Your task to perform on an android device: Add "sony triple a" to the cart on newegg.com, then select checkout. Image 0: 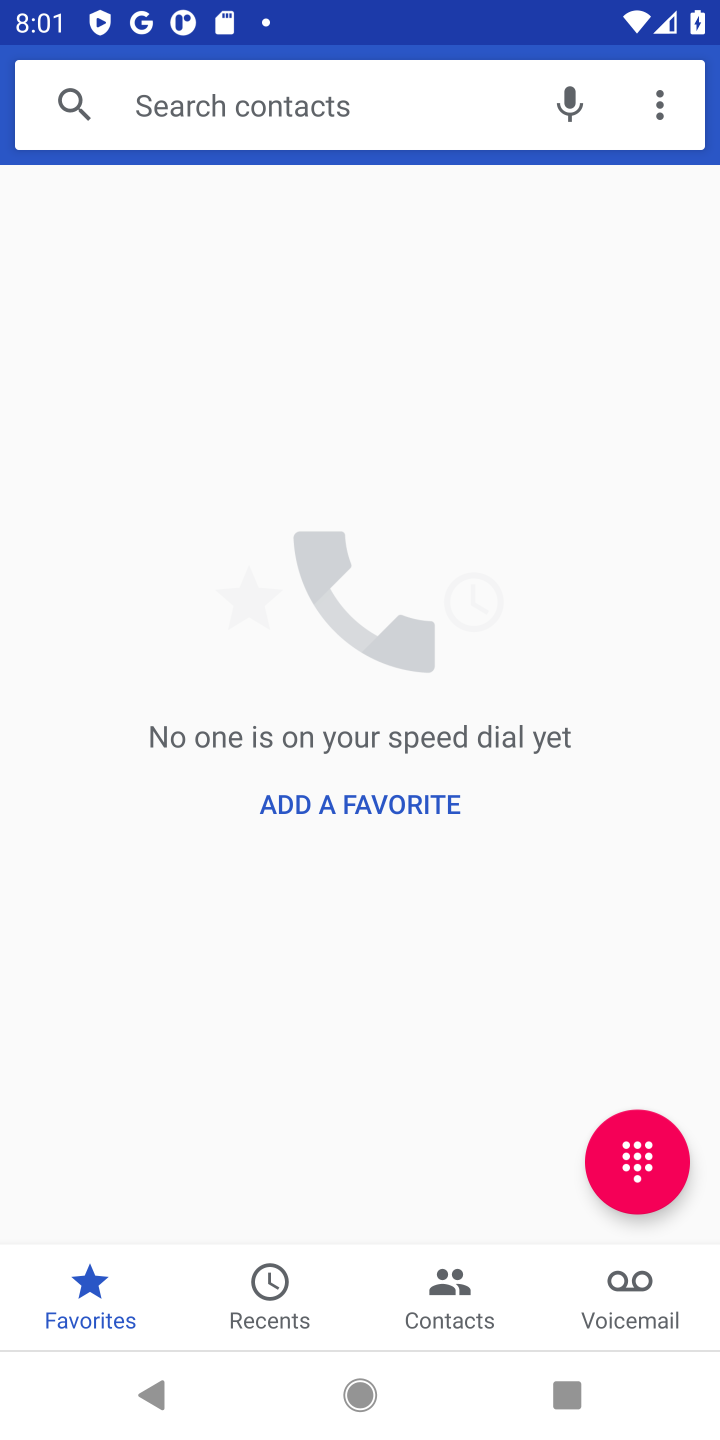
Step 0: press home button
Your task to perform on an android device: Add "sony triple a" to the cart on newegg.com, then select checkout. Image 1: 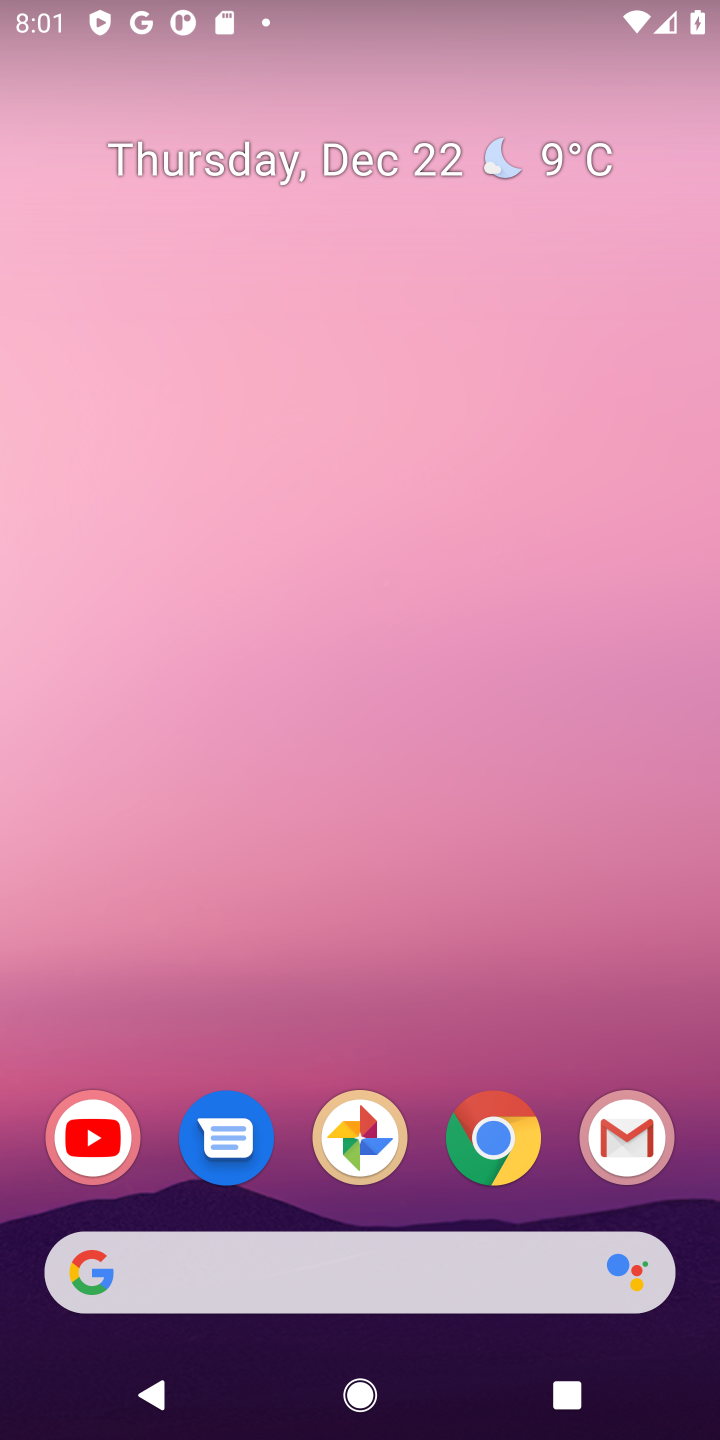
Step 1: click (485, 1151)
Your task to perform on an android device: Add "sony triple a" to the cart on newegg.com, then select checkout. Image 2: 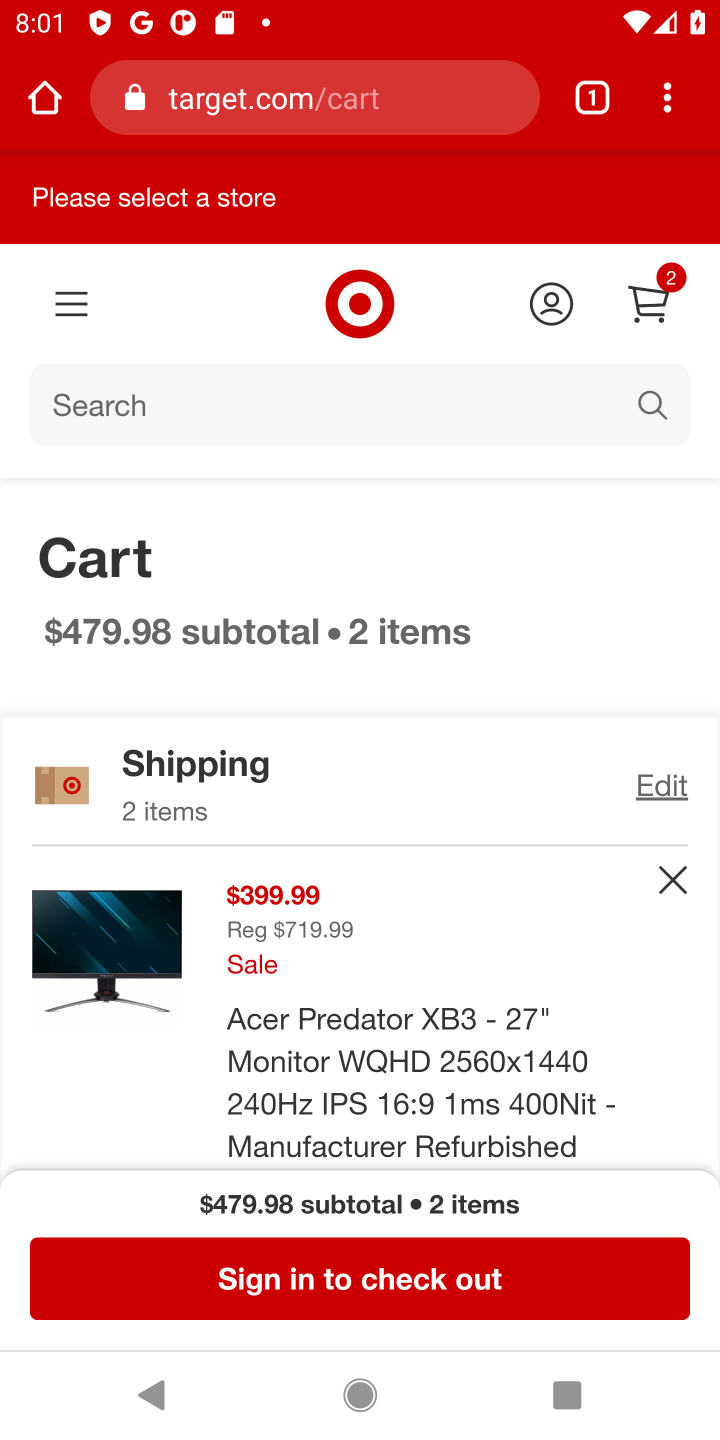
Step 2: click (248, 96)
Your task to perform on an android device: Add "sony triple a" to the cart on newegg.com, then select checkout. Image 3: 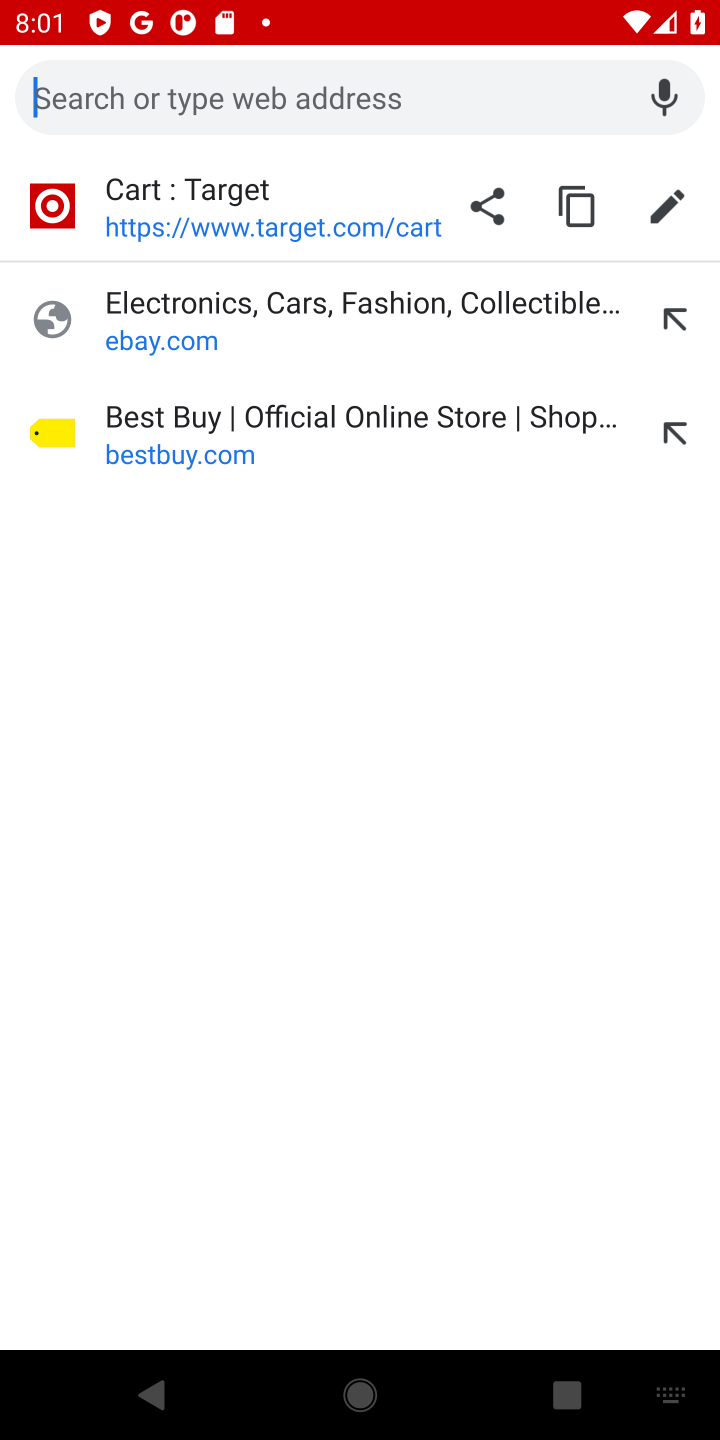
Step 3: type "newegg.com"
Your task to perform on an android device: Add "sony triple a" to the cart on newegg.com, then select checkout. Image 4: 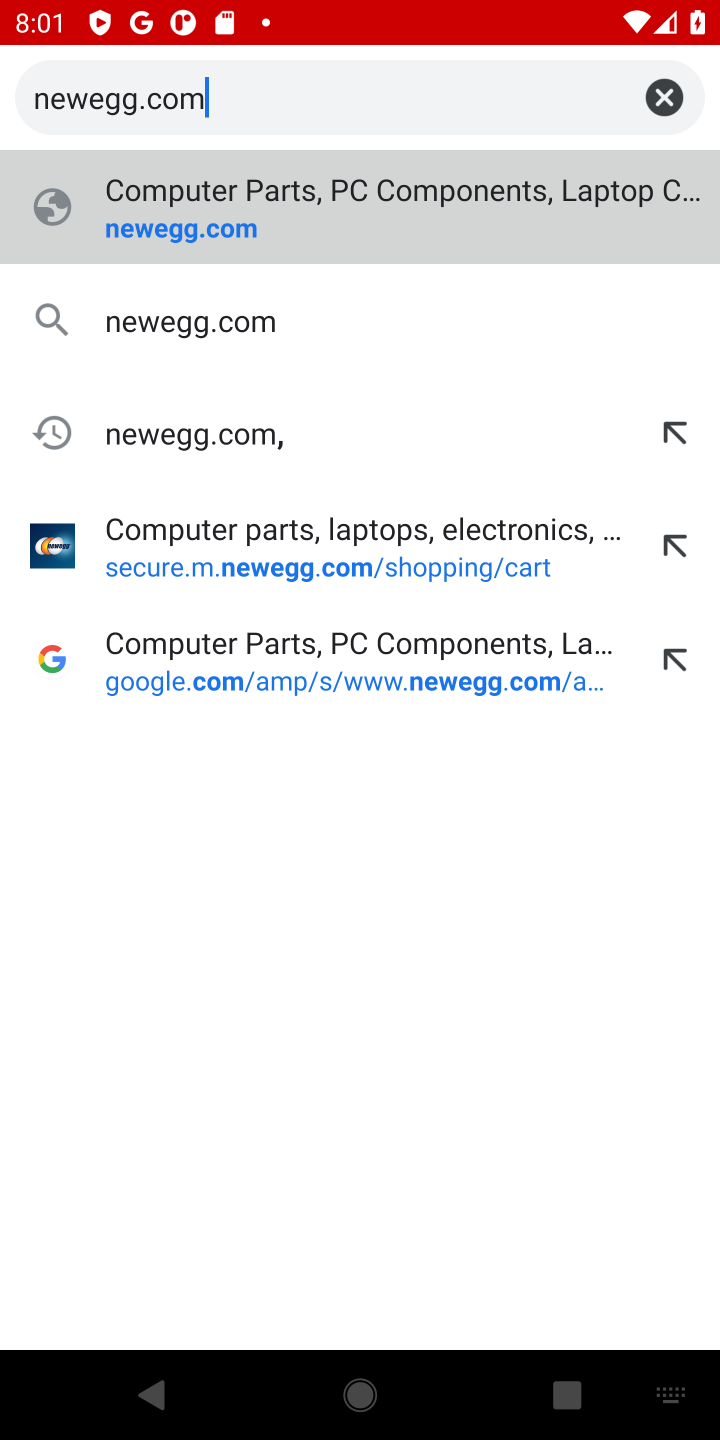
Step 4: click (298, 248)
Your task to perform on an android device: Add "sony triple a" to the cart on newegg.com, then select checkout. Image 5: 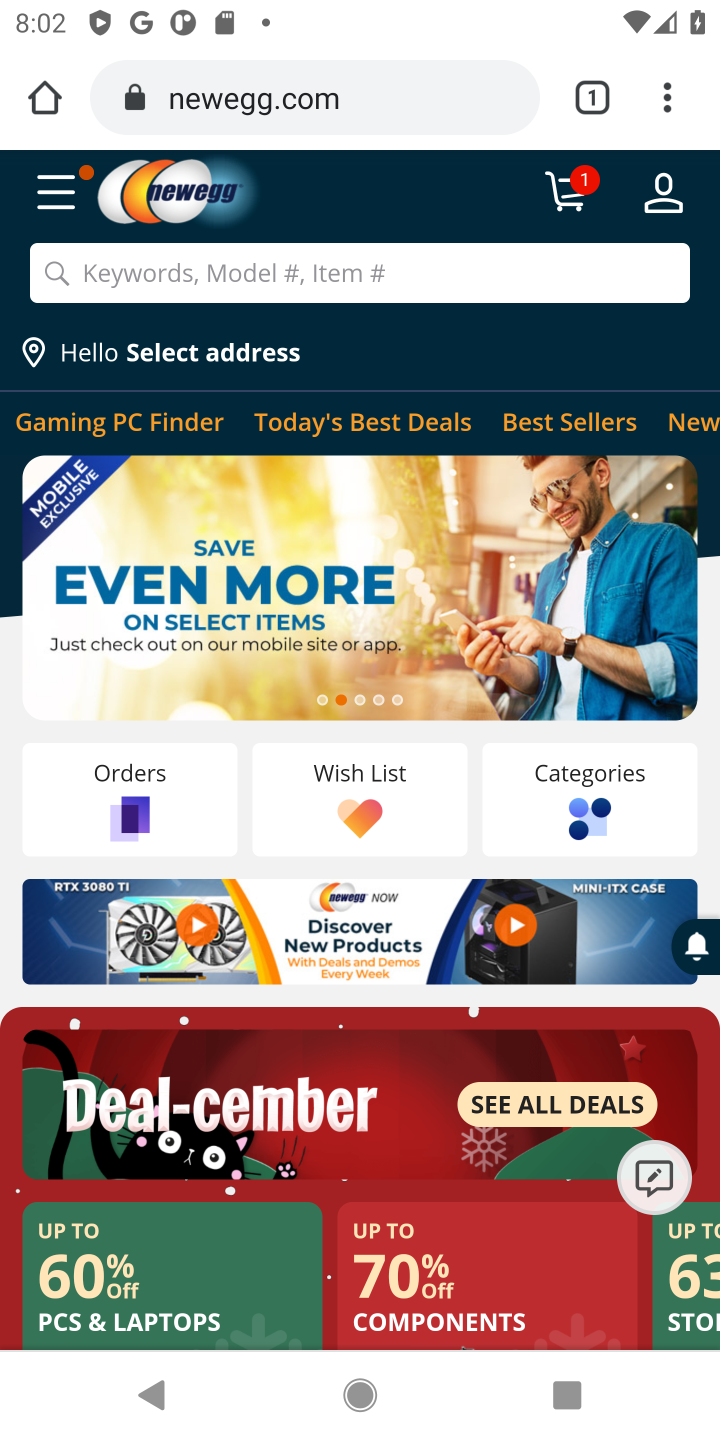
Step 5: click (226, 270)
Your task to perform on an android device: Add "sony triple a" to the cart on newegg.com, then select checkout. Image 6: 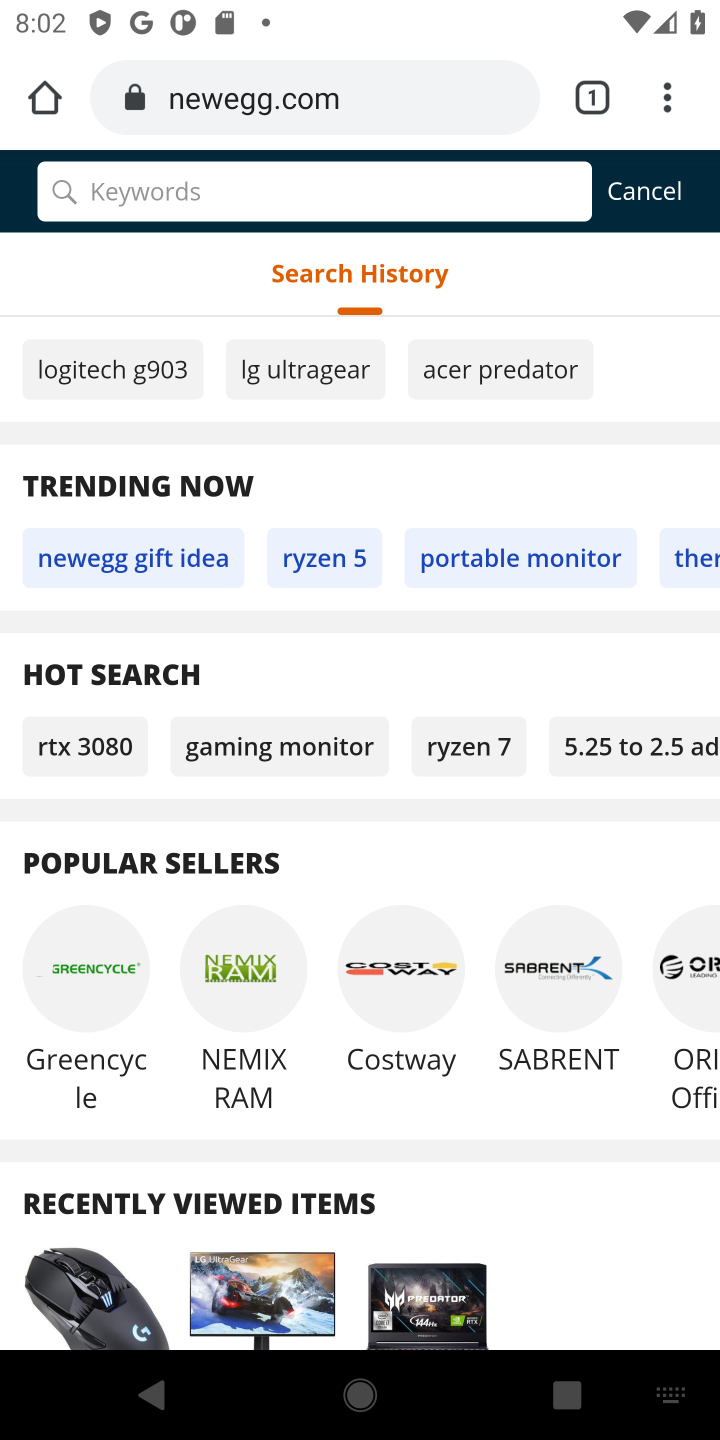
Step 6: type "sony triple a"
Your task to perform on an android device: Add "sony triple a" to the cart on newegg.com, then select checkout. Image 7: 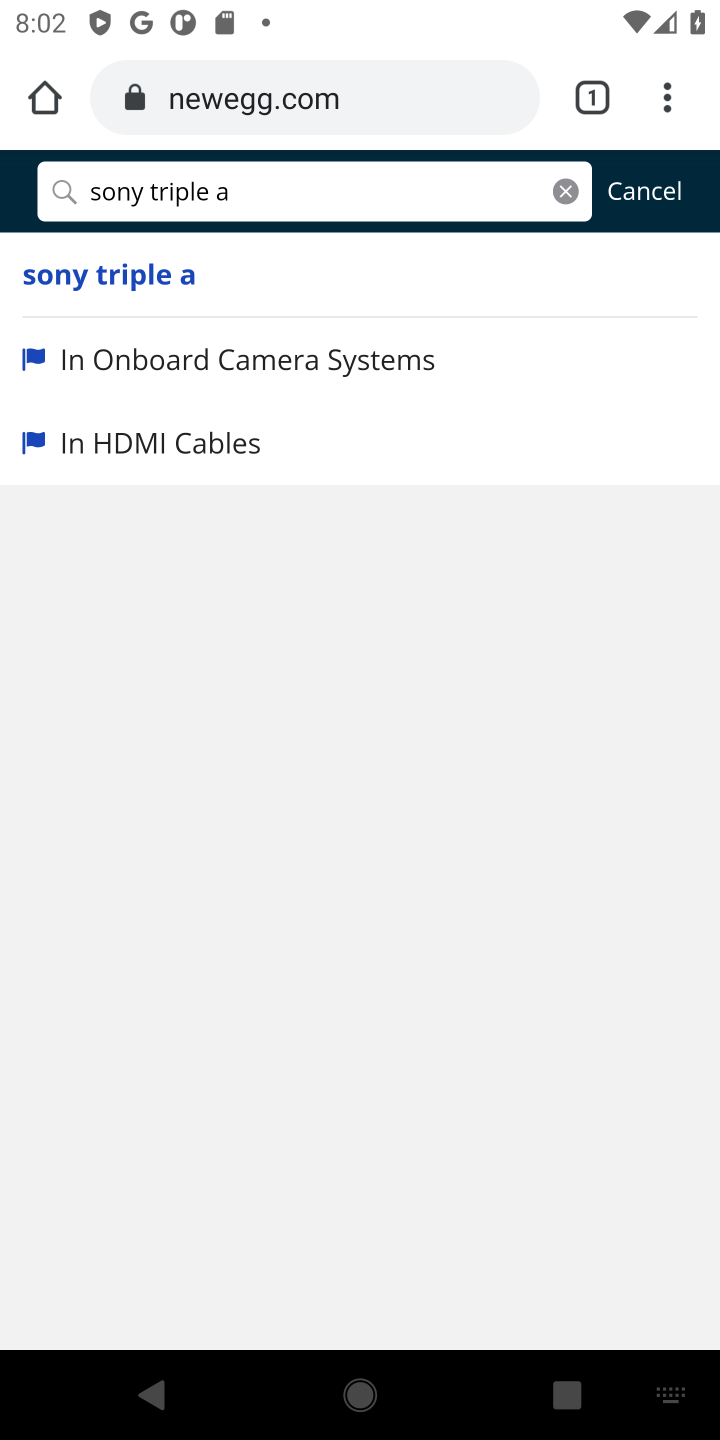
Step 7: press enter
Your task to perform on an android device: Add "sony triple a" to the cart on newegg.com, then select checkout. Image 8: 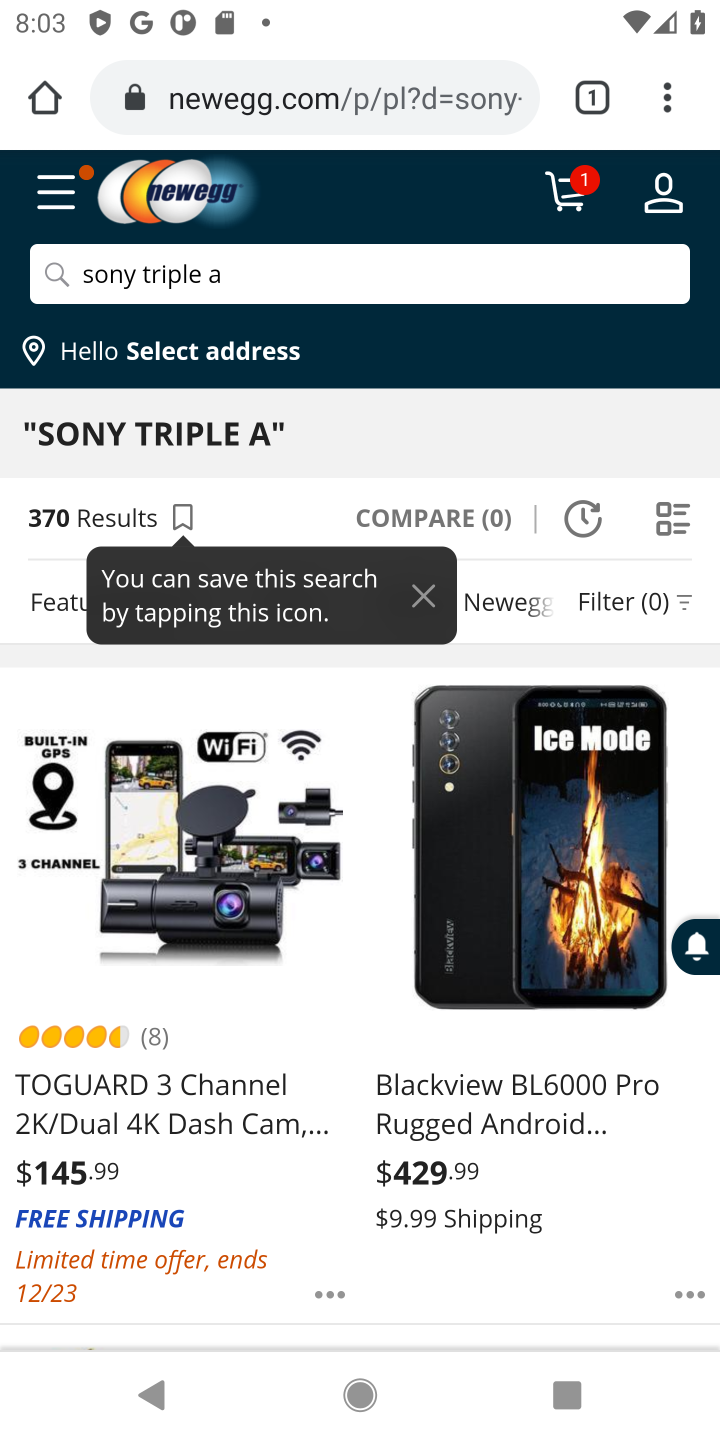
Step 8: task complete